Your task to perform on an android device: Search for sushi restaurants on Maps Image 0: 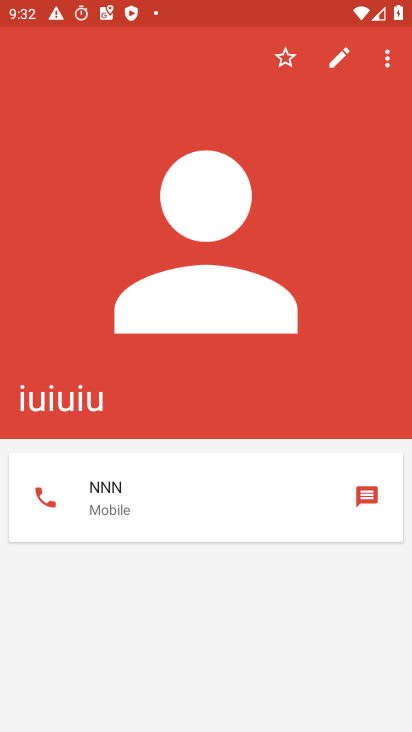
Step 0: press home button
Your task to perform on an android device: Search for sushi restaurants on Maps Image 1: 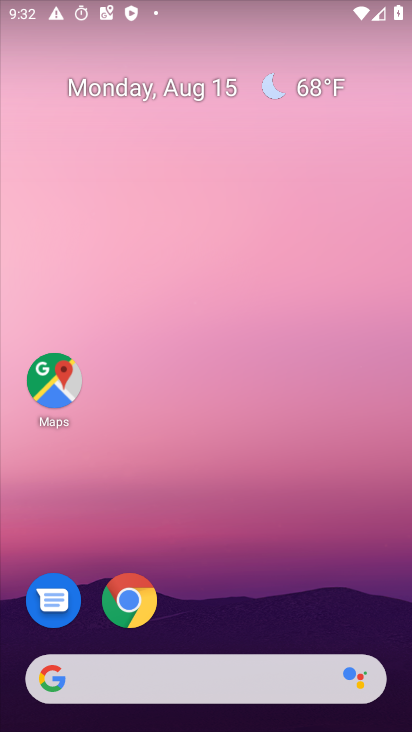
Step 1: click (55, 388)
Your task to perform on an android device: Search for sushi restaurants on Maps Image 2: 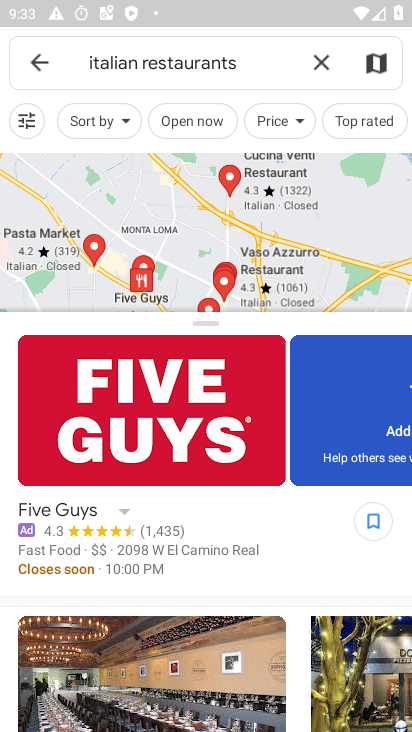
Step 2: click (321, 56)
Your task to perform on an android device: Search for sushi restaurants on Maps Image 3: 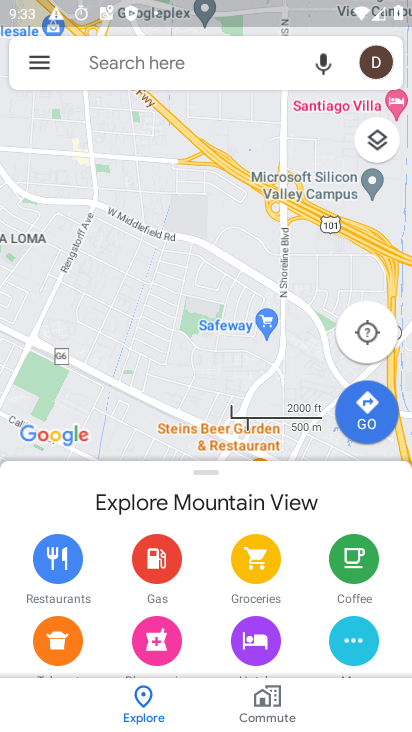
Step 3: click (217, 66)
Your task to perform on an android device: Search for sushi restaurants on Maps Image 4: 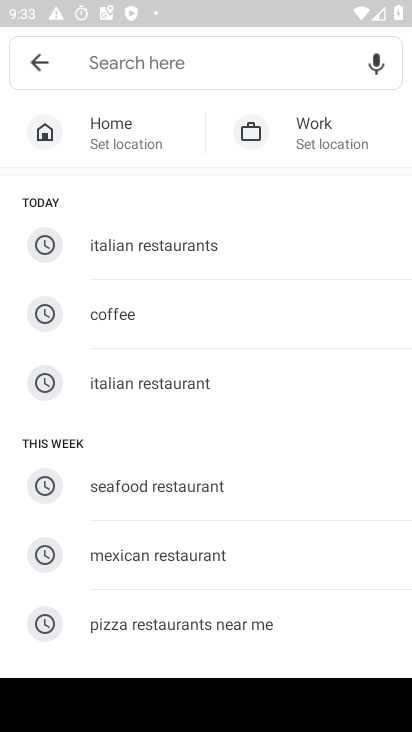
Step 4: type "sushi restaurants"
Your task to perform on an android device: Search for sushi restaurants on Maps Image 5: 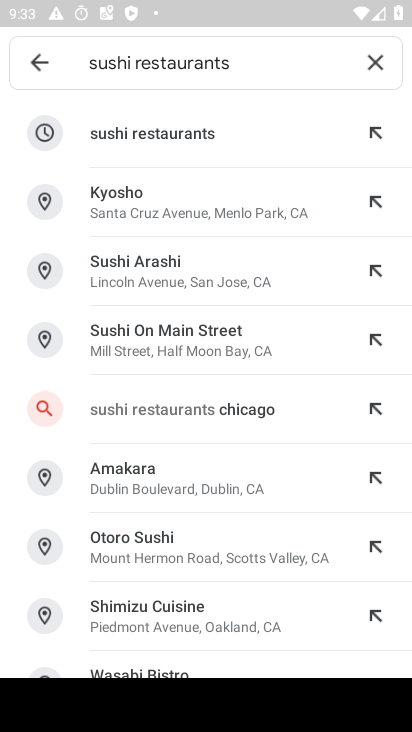
Step 5: click (193, 127)
Your task to perform on an android device: Search for sushi restaurants on Maps Image 6: 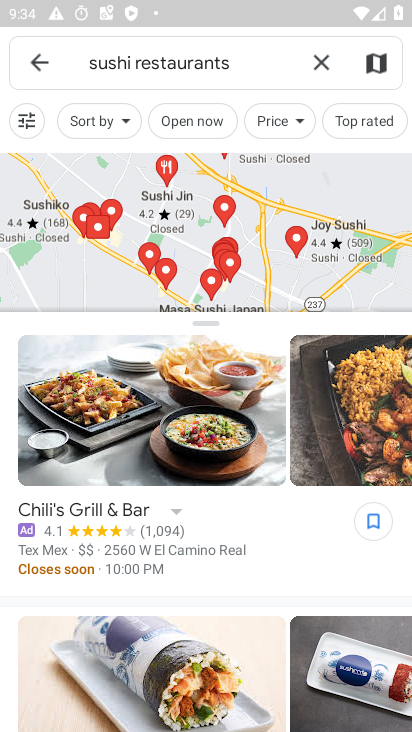
Step 6: task complete